Your task to perform on an android device: check storage Image 0: 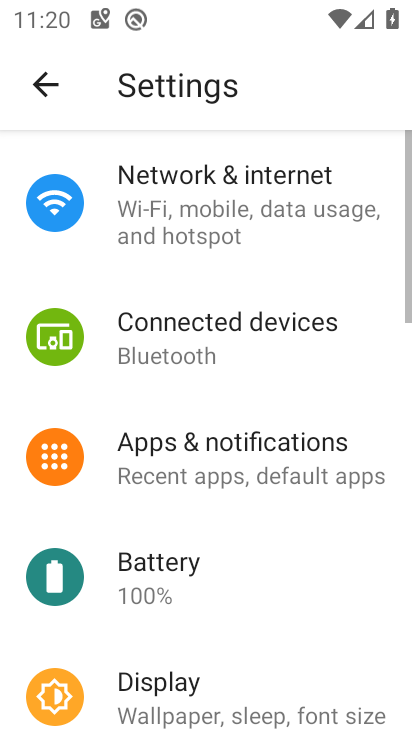
Step 0: press home button
Your task to perform on an android device: check storage Image 1: 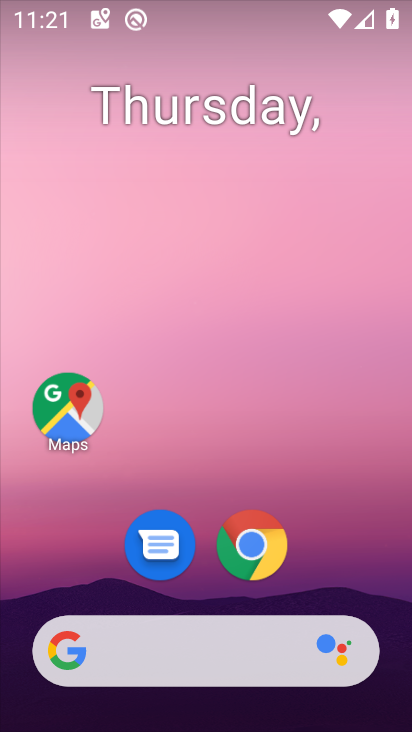
Step 1: drag from (299, 589) to (257, 3)
Your task to perform on an android device: check storage Image 2: 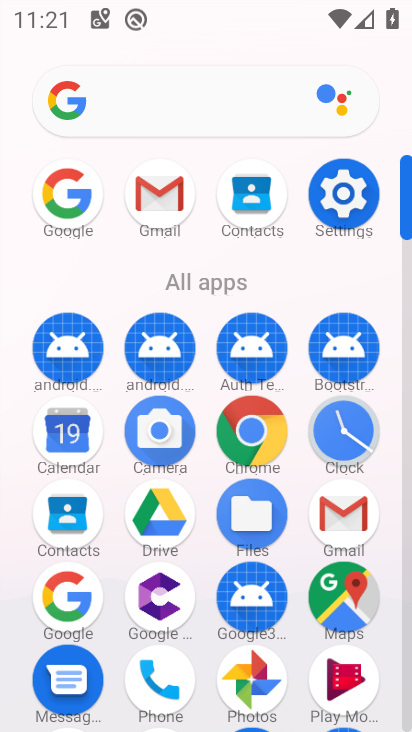
Step 2: click (336, 201)
Your task to perform on an android device: check storage Image 3: 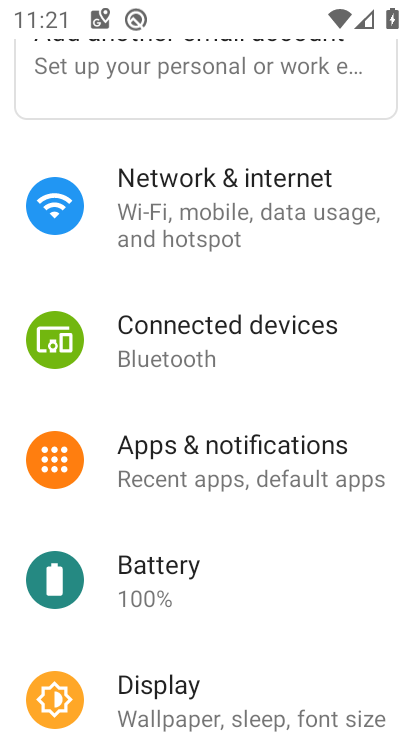
Step 3: task complete